Your task to perform on an android device: Open Yahoo.com Image 0: 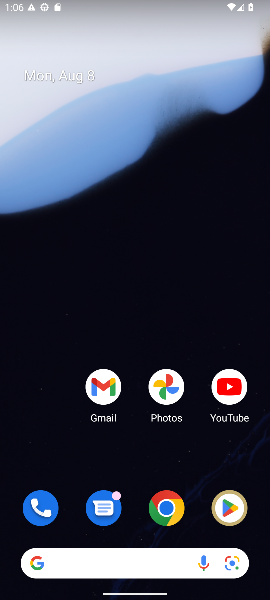
Step 0: click (165, 504)
Your task to perform on an android device: Open Yahoo.com Image 1: 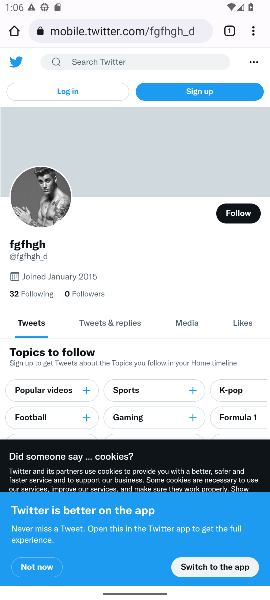
Step 1: click (104, 27)
Your task to perform on an android device: Open Yahoo.com Image 2: 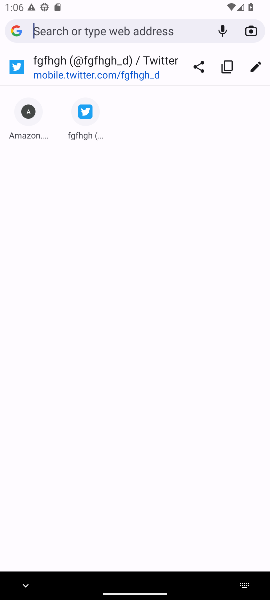
Step 2: type "www.yahoo.com"
Your task to perform on an android device: Open Yahoo.com Image 3: 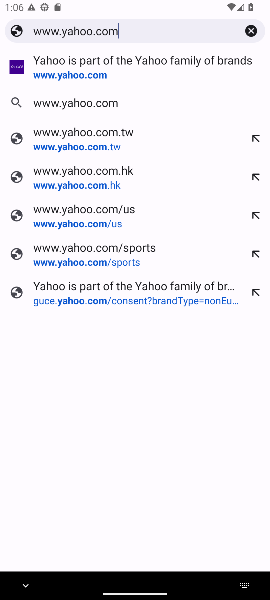
Step 3: click (84, 76)
Your task to perform on an android device: Open Yahoo.com Image 4: 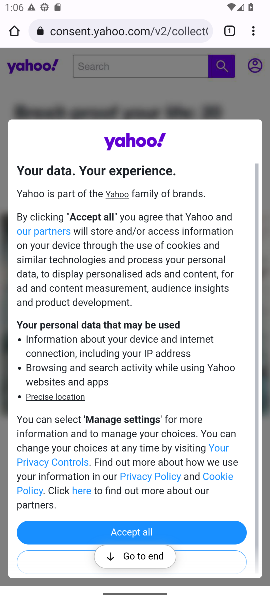
Step 4: task complete